Your task to perform on an android device: turn on data saver in the chrome app Image 0: 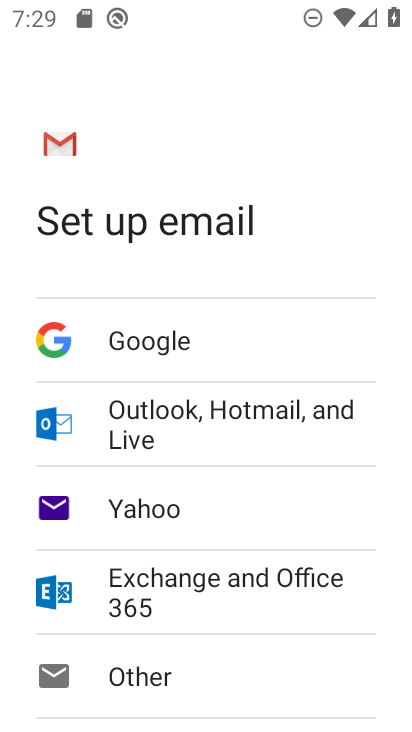
Step 0: press home button
Your task to perform on an android device: turn on data saver in the chrome app Image 1: 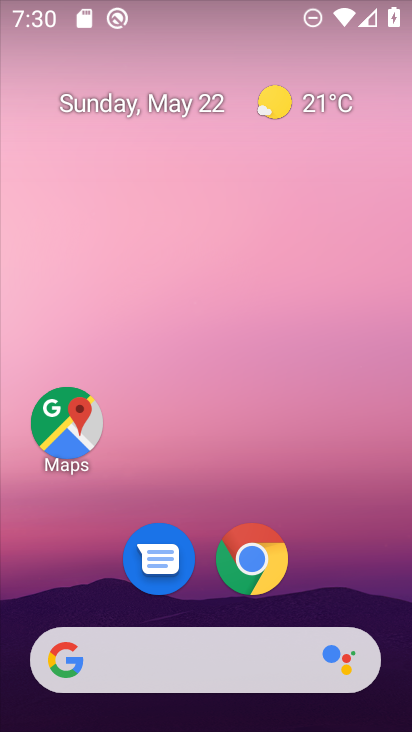
Step 1: drag from (269, 690) to (233, 239)
Your task to perform on an android device: turn on data saver in the chrome app Image 2: 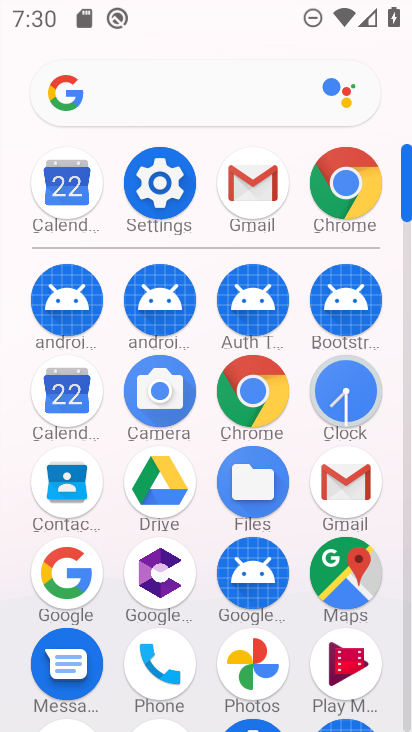
Step 2: click (327, 189)
Your task to perform on an android device: turn on data saver in the chrome app Image 3: 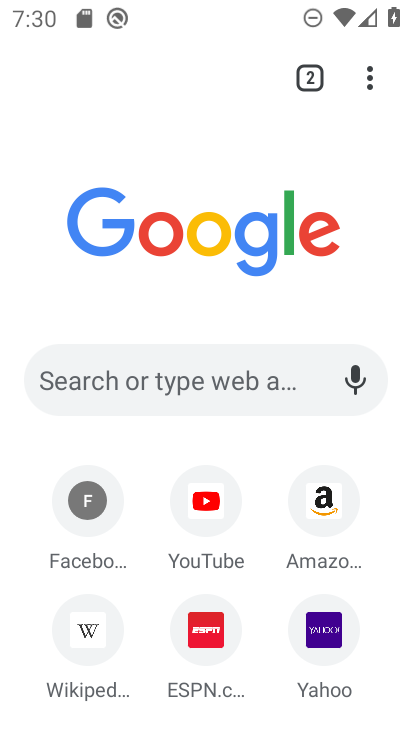
Step 3: click (375, 88)
Your task to perform on an android device: turn on data saver in the chrome app Image 4: 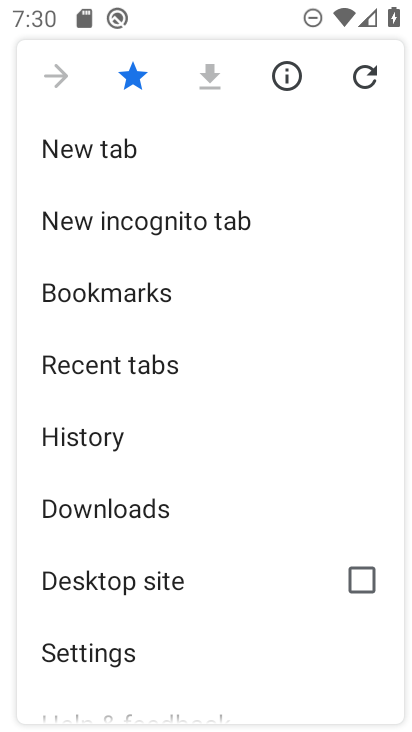
Step 4: click (151, 641)
Your task to perform on an android device: turn on data saver in the chrome app Image 5: 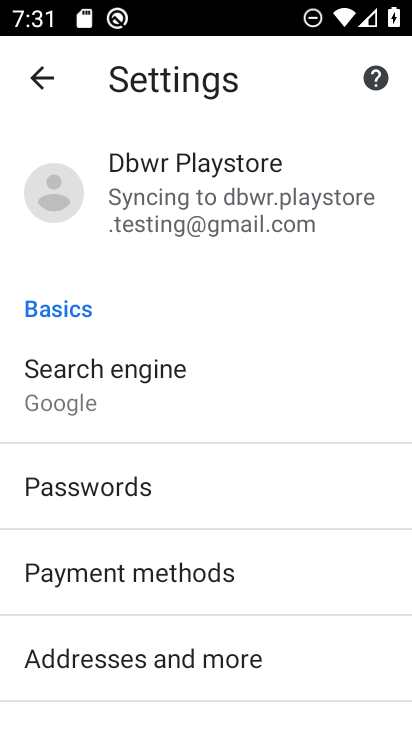
Step 5: drag from (145, 648) to (194, 417)
Your task to perform on an android device: turn on data saver in the chrome app Image 6: 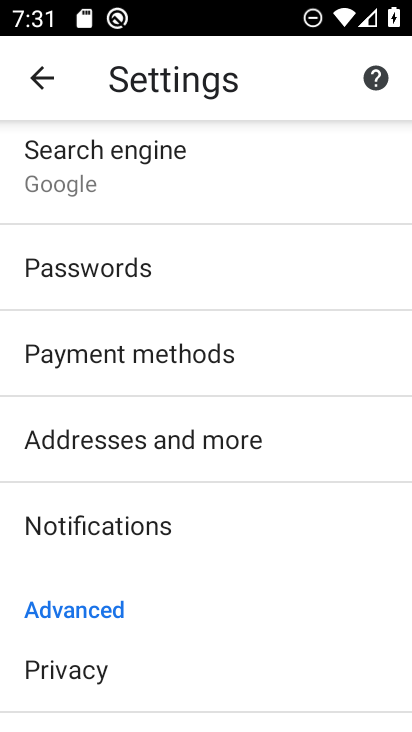
Step 6: drag from (175, 577) to (191, 399)
Your task to perform on an android device: turn on data saver in the chrome app Image 7: 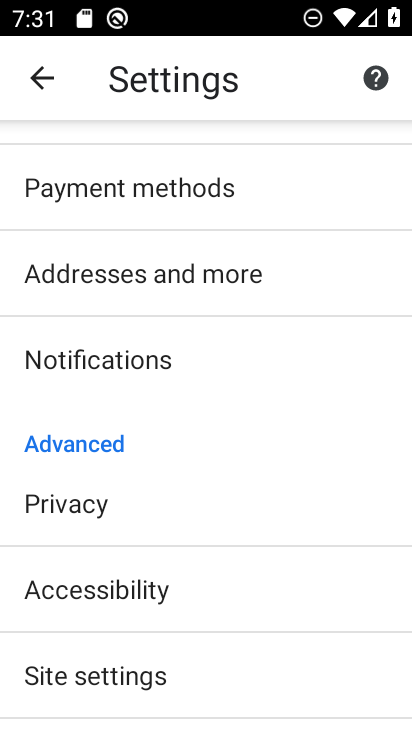
Step 7: drag from (121, 643) to (157, 485)
Your task to perform on an android device: turn on data saver in the chrome app Image 8: 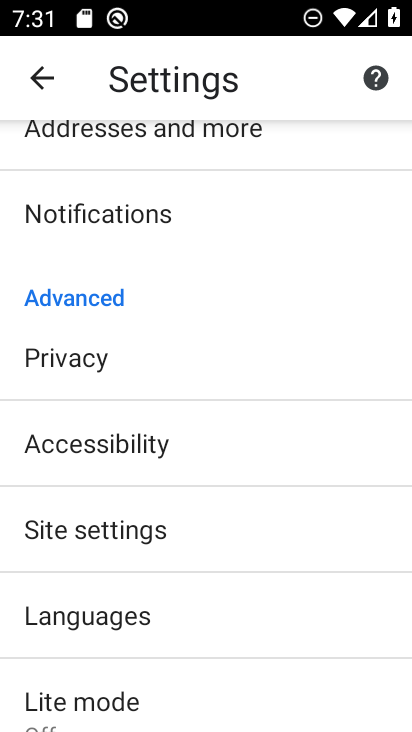
Step 8: drag from (96, 658) to (125, 548)
Your task to perform on an android device: turn on data saver in the chrome app Image 9: 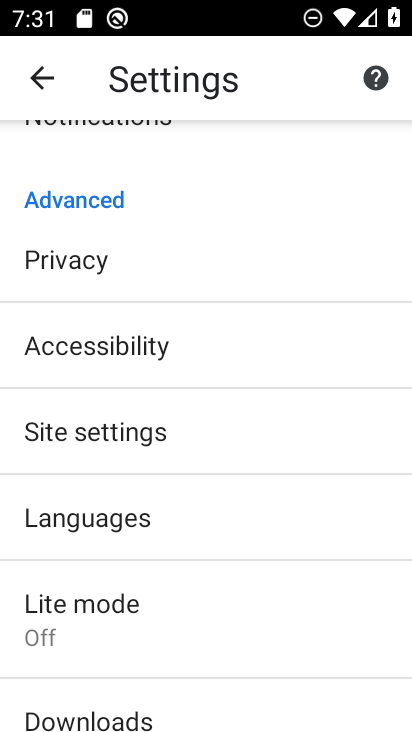
Step 9: drag from (110, 683) to (168, 492)
Your task to perform on an android device: turn on data saver in the chrome app Image 10: 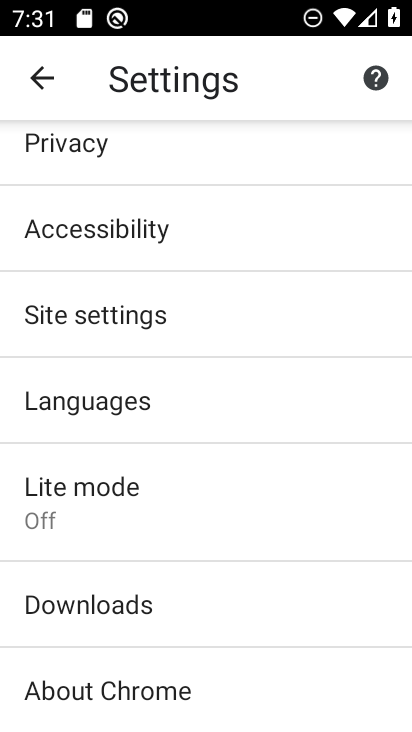
Step 10: click (147, 485)
Your task to perform on an android device: turn on data saver in the chrome app Image 11: 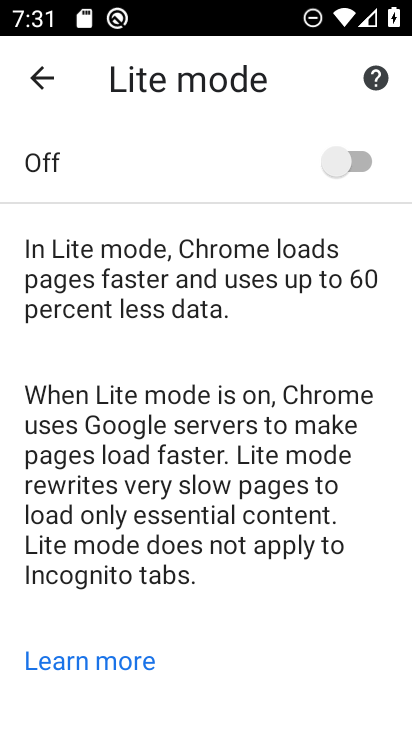
Step 11: click (357, 155)
Your task to perform on an android device: turn on data saver in the chrome app Image 12: 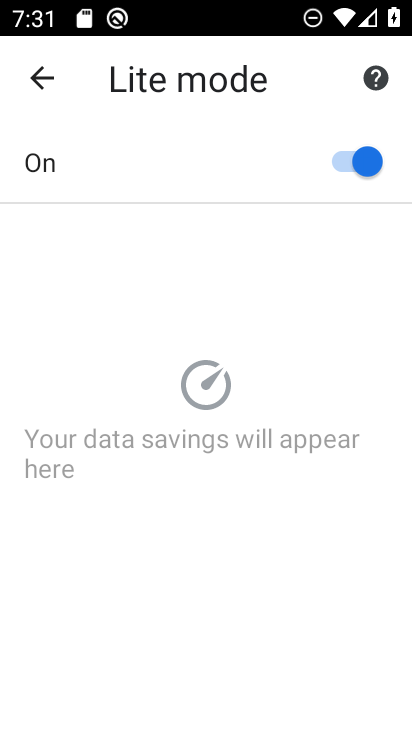
Step 12: task complete